Your task to perform on an android device: Open the phone app and click the voicemail tab. Image 0: 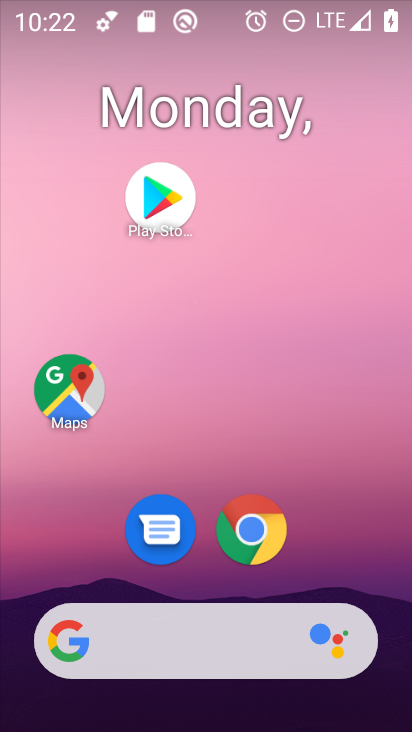
Step 0: click (218, 47)
Your task to perform on an android device: Open the phone app and click the voicemail tab. Image 1: 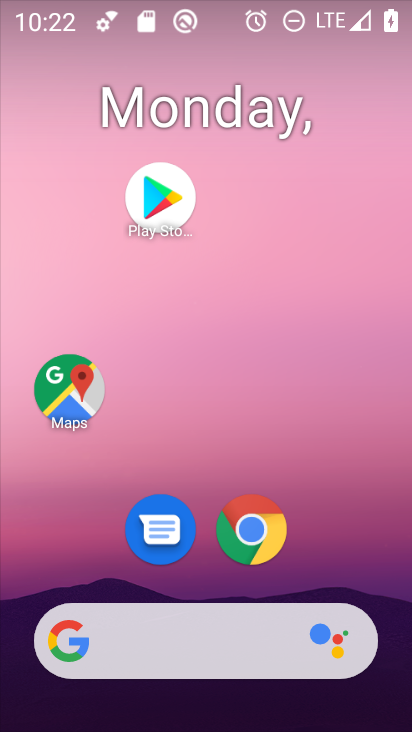
Step 1: drag from (223, 430) to (193, 11)
Your task to perform on an android device: Open the phone app and click the voicemail tab. Image 2: 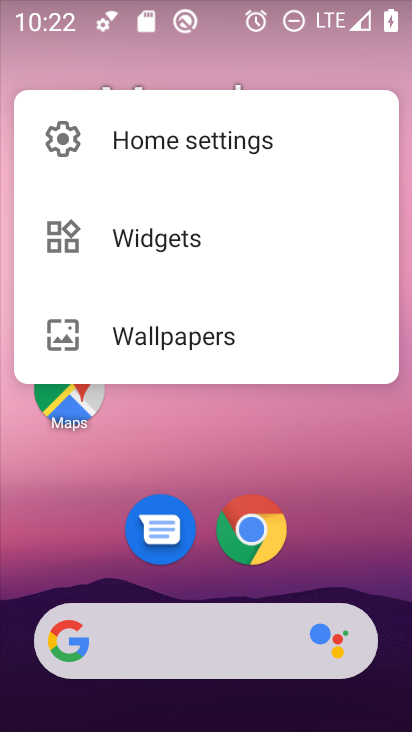
Step 2: click (281, 426)
Your task to perform on an android device: Open the phone app and click the voicemail tab. Image 3: 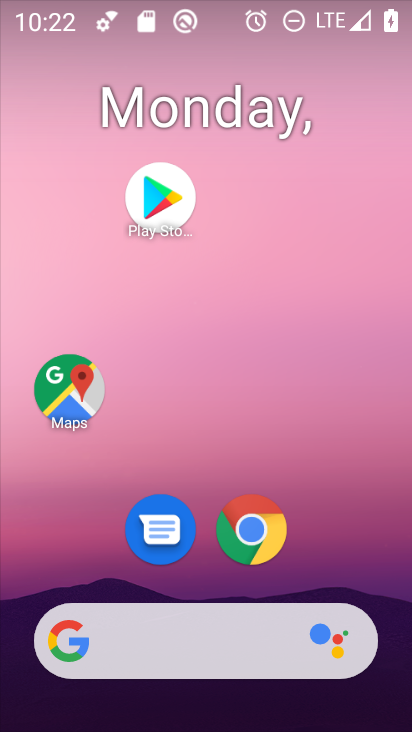
Step 3: drag from (336, 537) to (243, 149)
Your task to perform on an android device: Open the phone app and click the voicemail tab. Image 4: 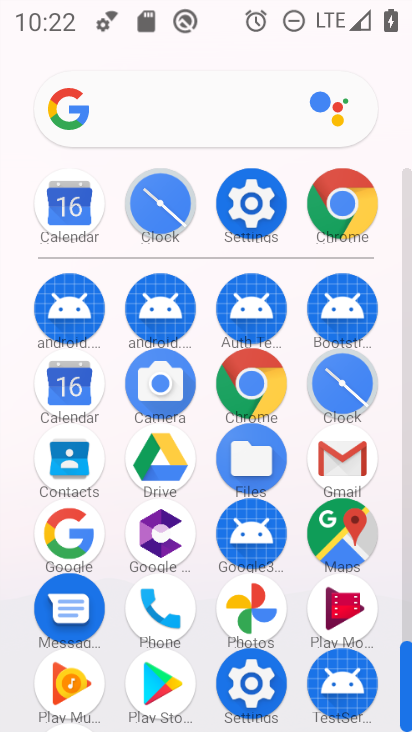
Step 4: click (158, 594)
Your task to perform on an android device: Open the phone app and click the voicemail tab. Image 5: 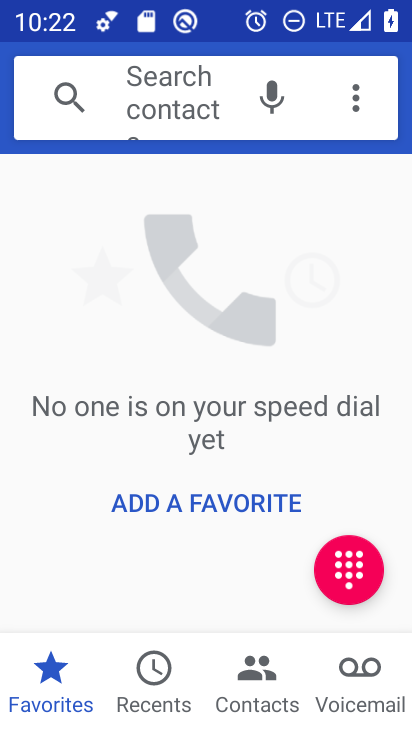
Step 5: click (353, 672)
Your task to perform on an android device: Open the phone app and click the voicemail tab. Image 6: 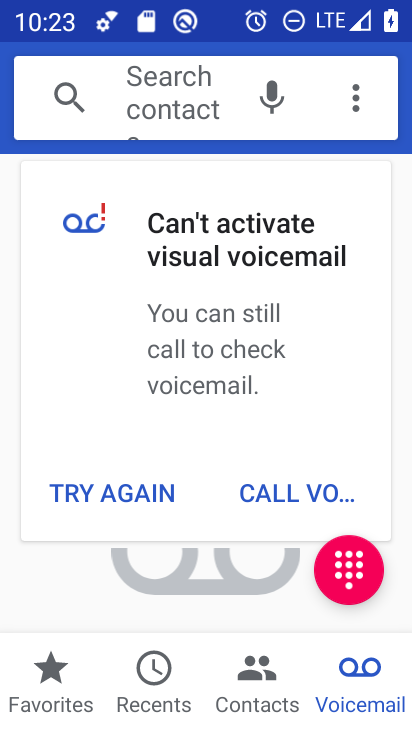
Step 6: task complete